Your task to perform on an android device: Go to calendar. Show me events next week Image 0: 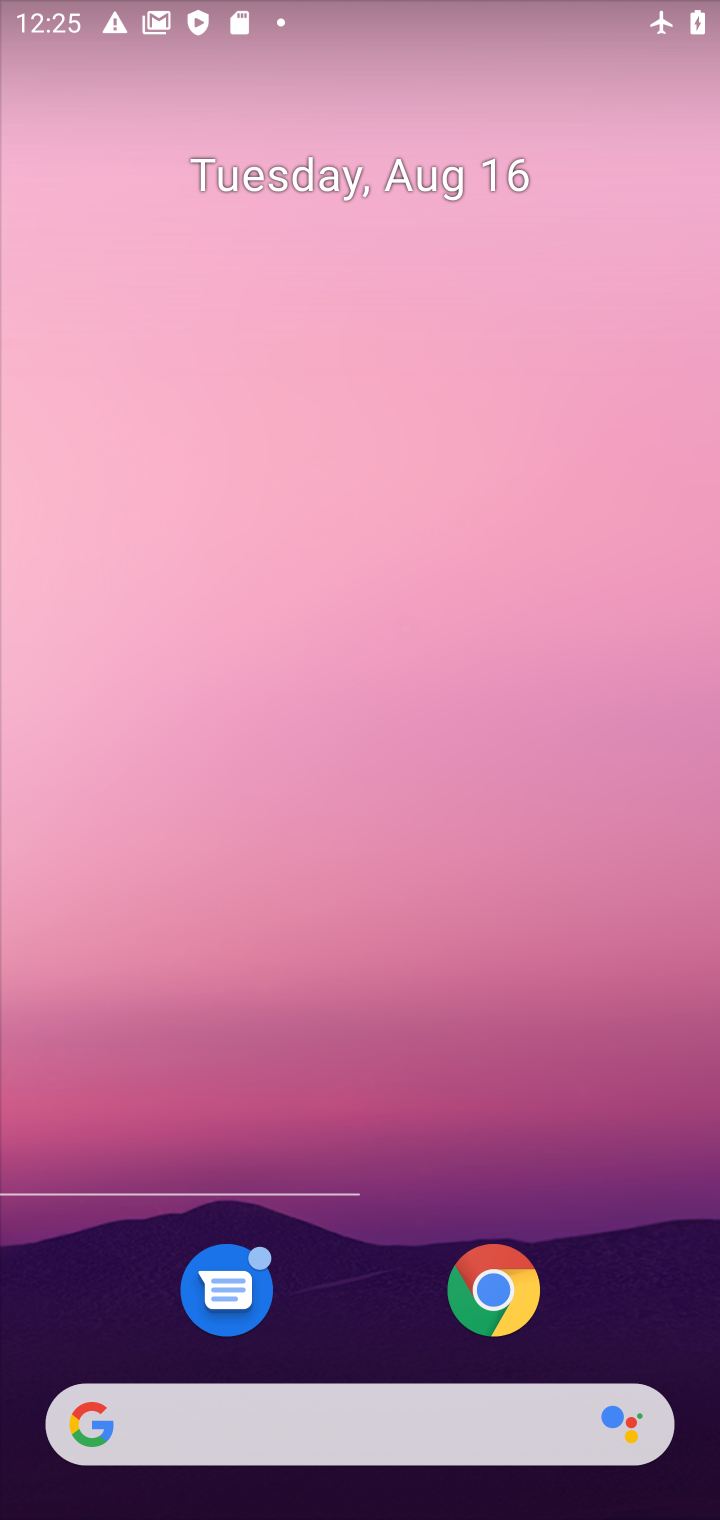
Step 0: press home button
Your task to perform on an android device: Go to calendar. Show me events next week Image 1: 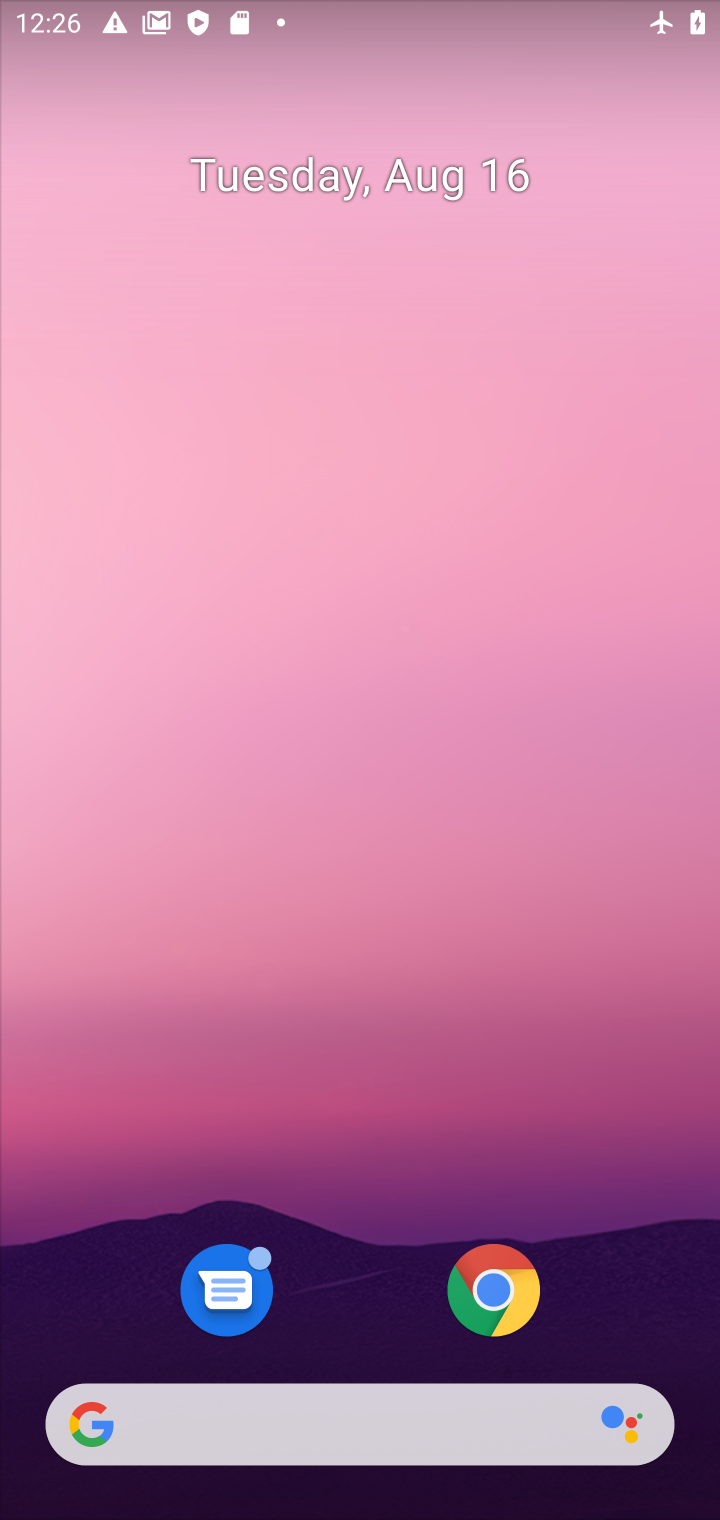
Step 1: drag from (370, 1350) to (419, 60)
Your task to perform on an android device: Go to calendar. Show me events next week Image 2: 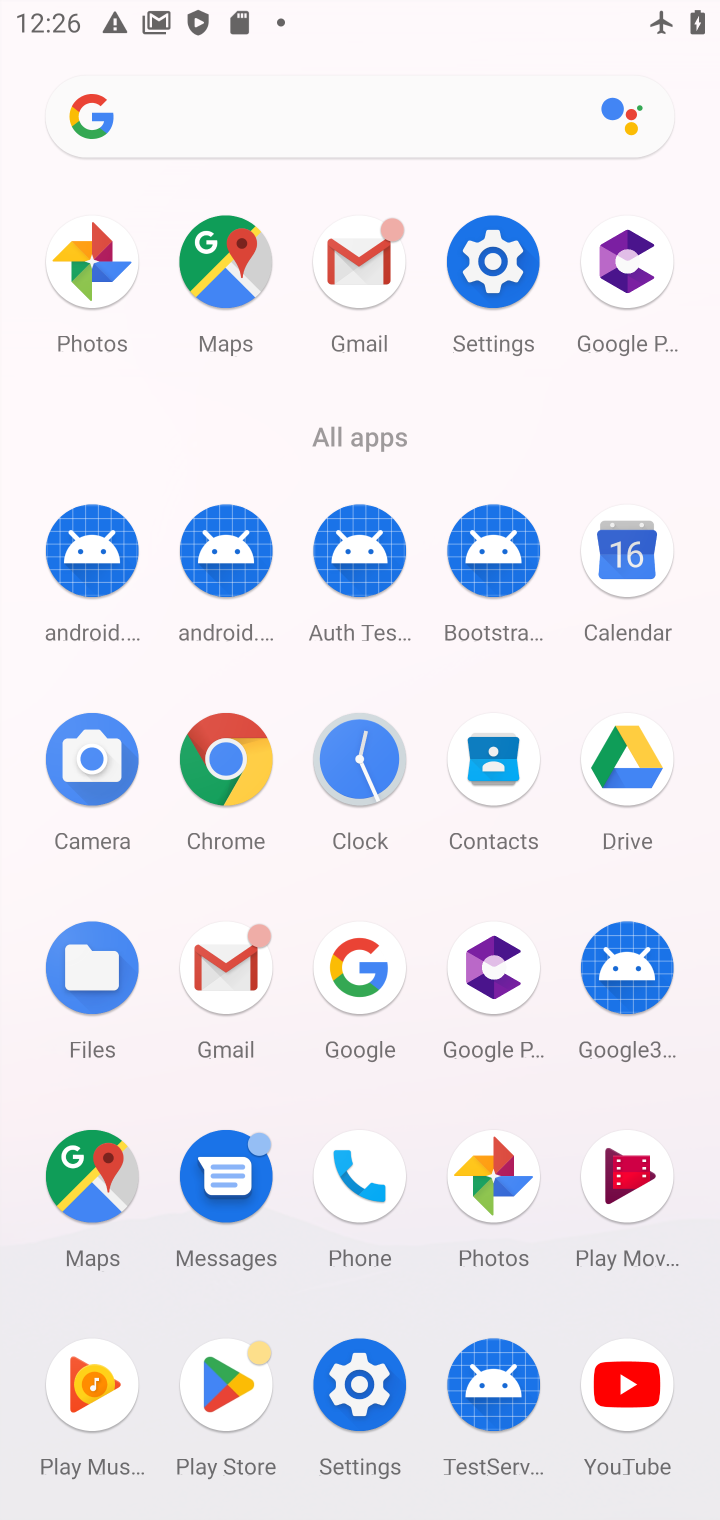
Step 2: click (628, 545)
Your task to perform on an android device: Go to calendar. Show me events next week Image 3: 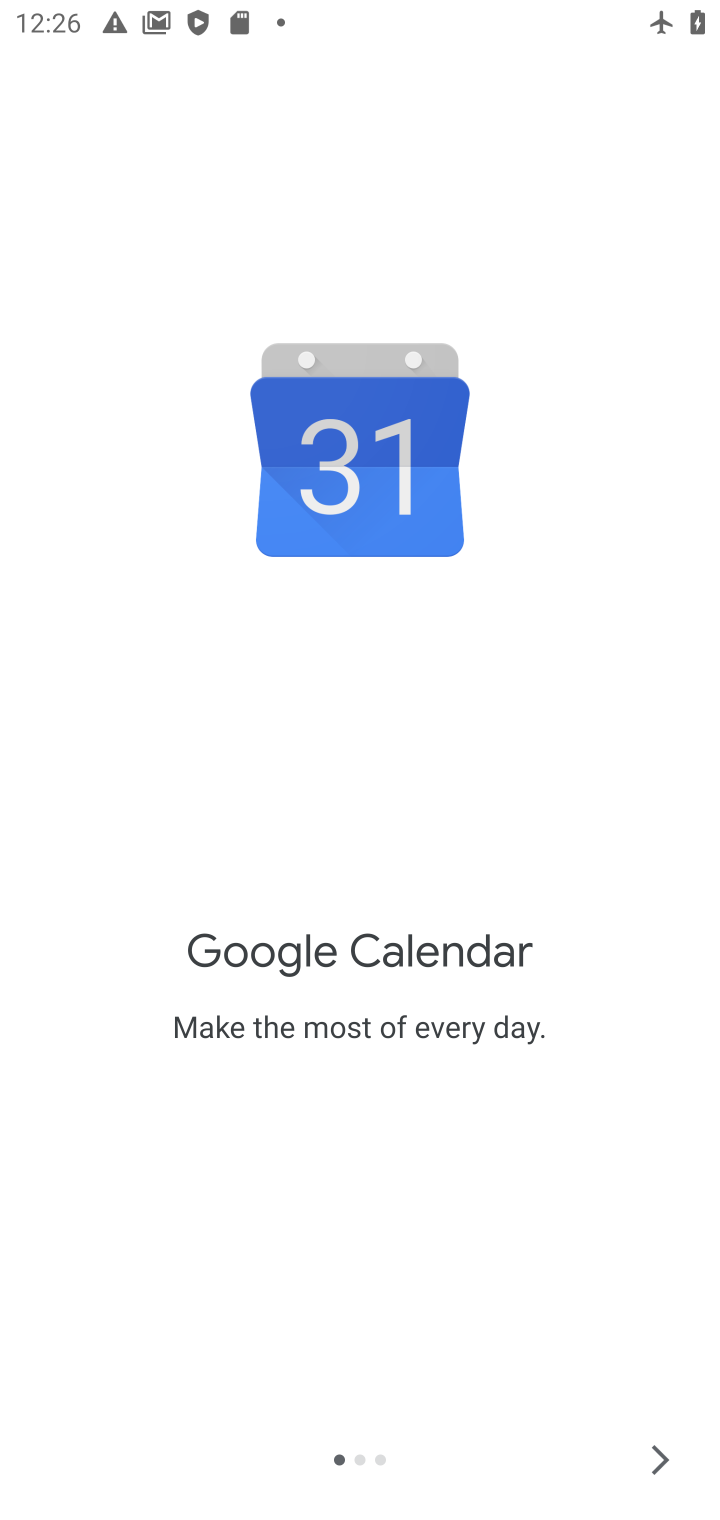
Step 3: click (655, 1459)
Your task to perform on an android device: Go to calendar. Show me events next week Image 4: 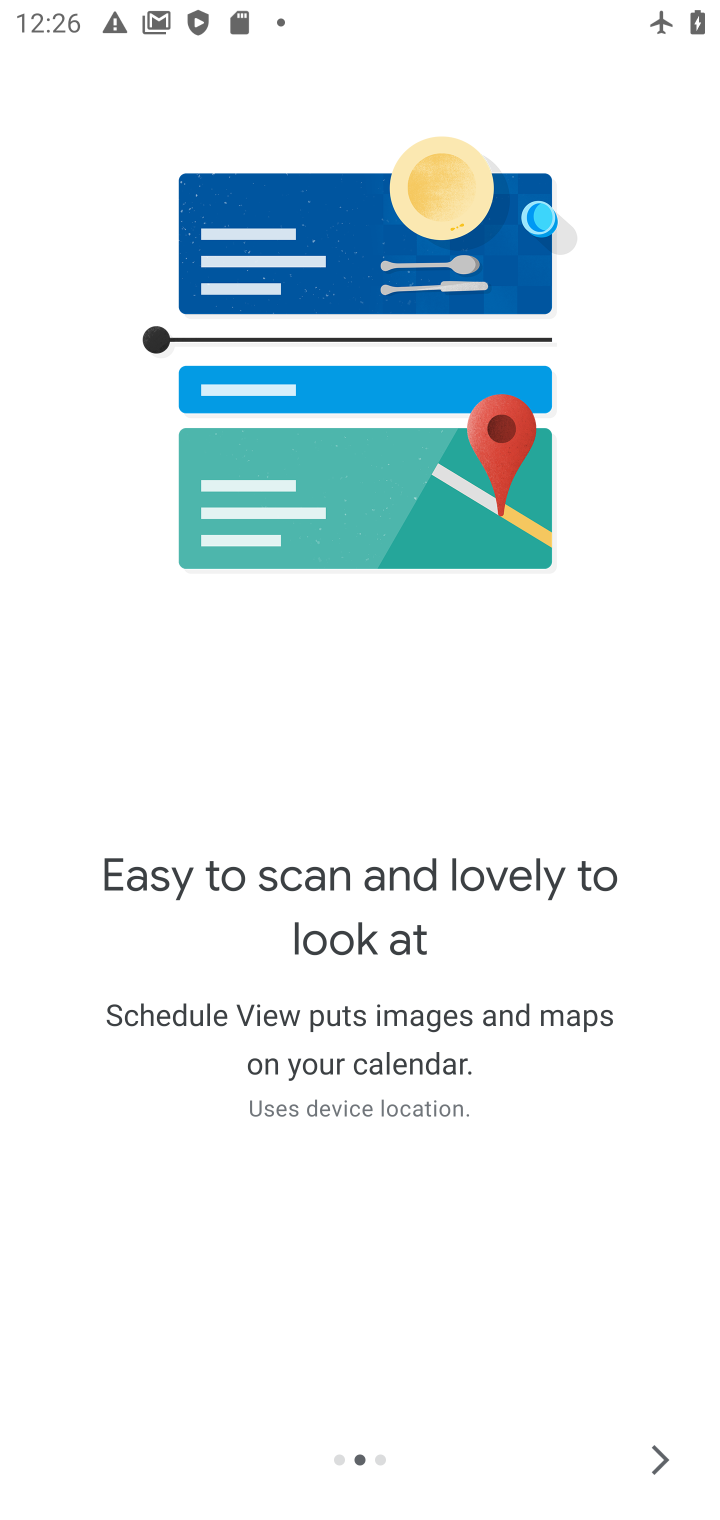
Step 4: click (667, 1463)
Your task to perform on an android device: Go to calendar. Show me events next week Image 5: 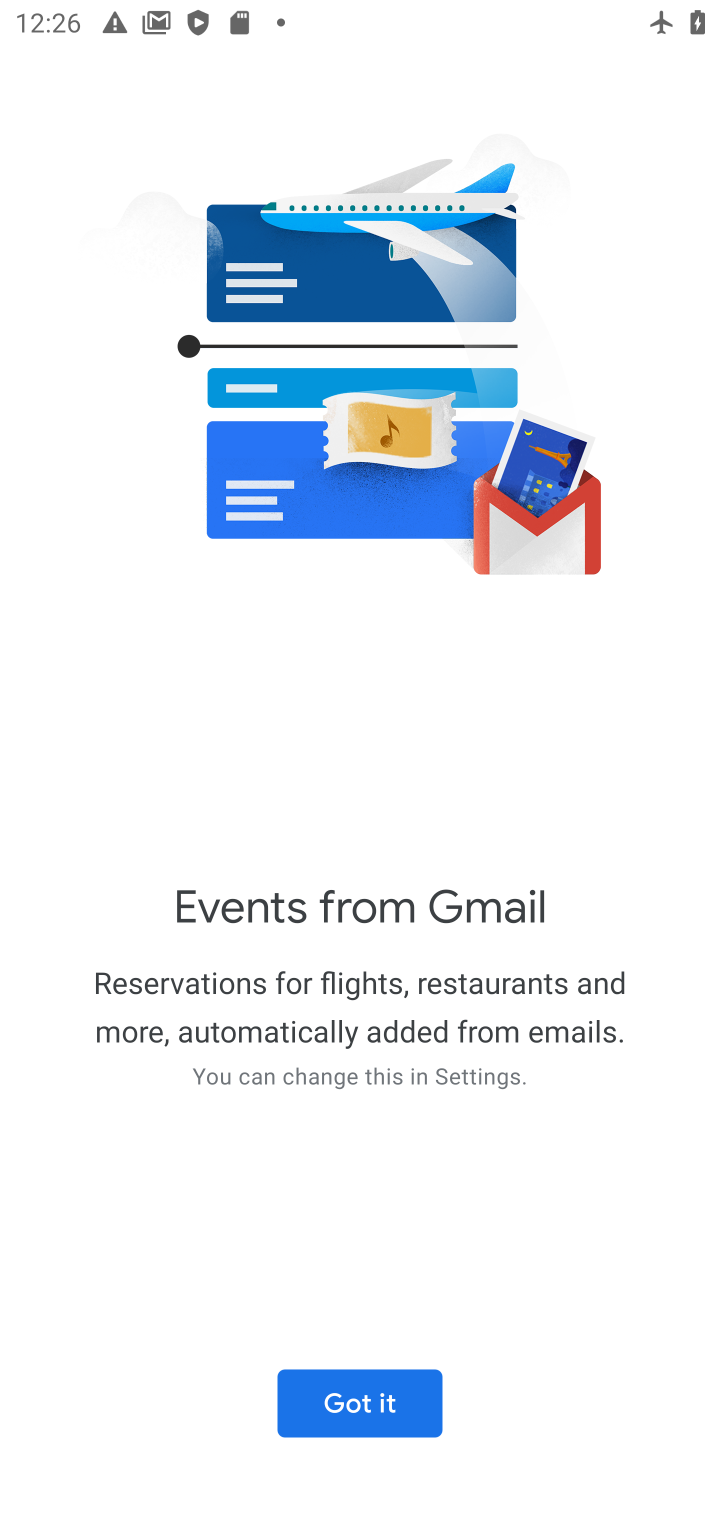
Step 5: click (353, 1382)
Your task to perform on an android device: Go to calendar. Show me events next week Image 6: 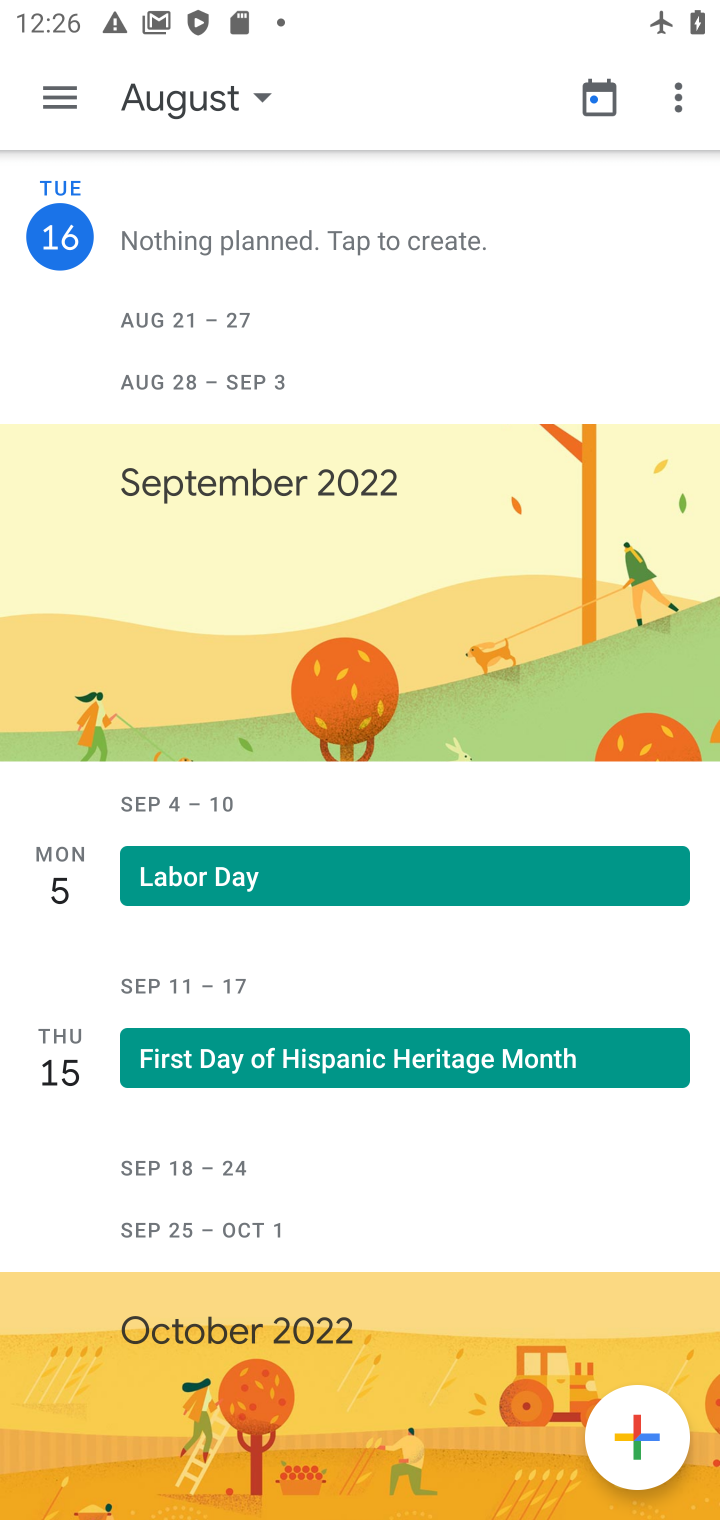
Step 6: click (55, 80)
Your task to perform on an android device: Go to calendar. Show me events next week Image 7: 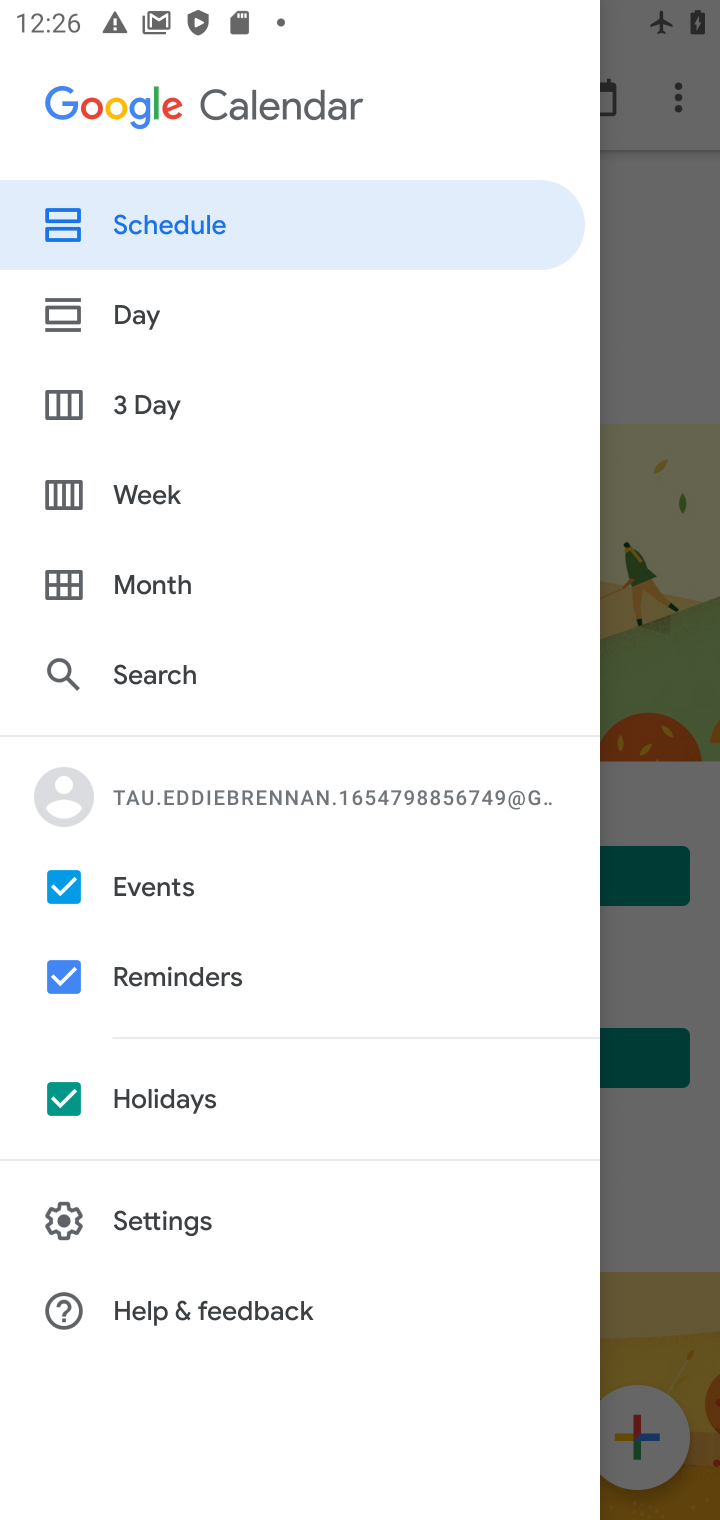
Step 7: click (187, 488)
Your task to perform on an android device: Go to calendar. Show me events next week Image 8: 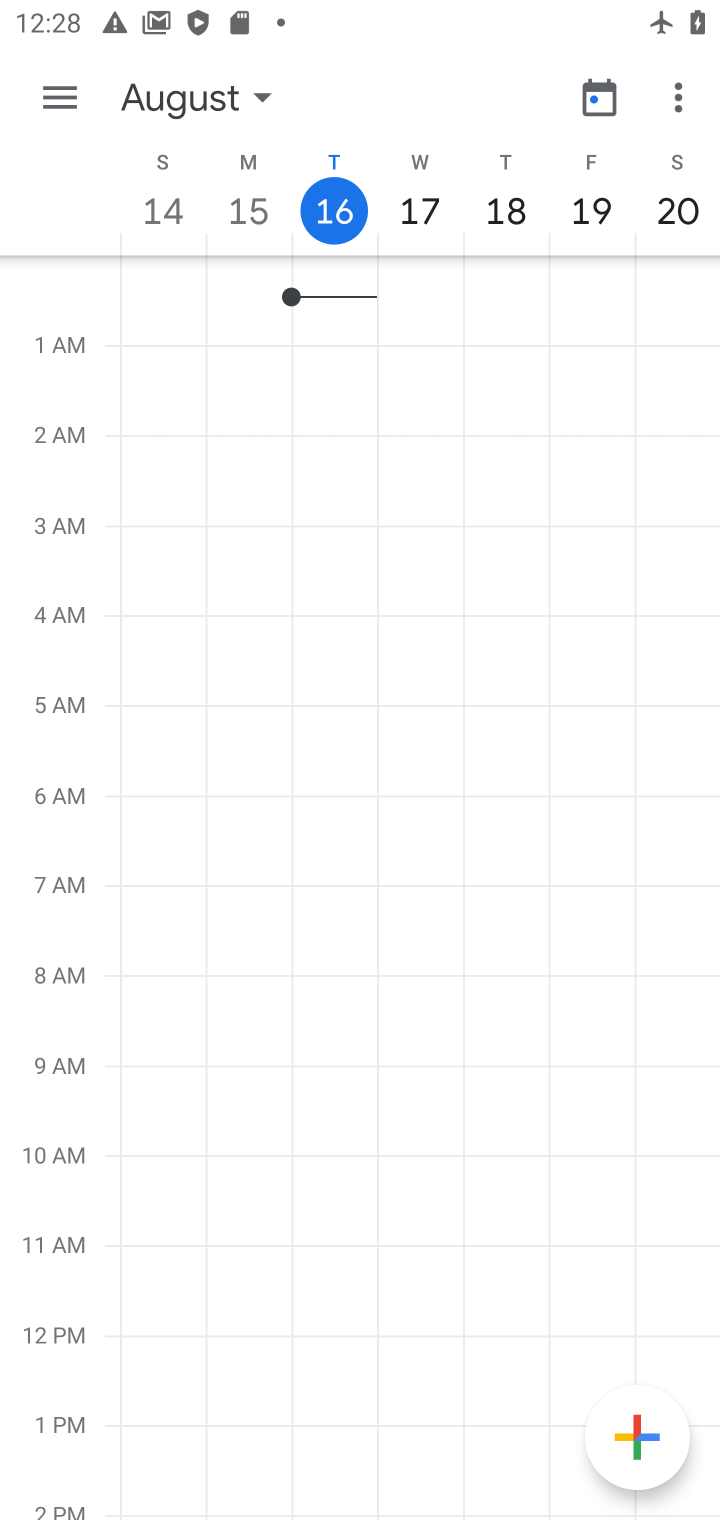
Step 8: drag from (634, 218) to (48, 183)
Your task to perform on an android device: Go to calendar. Show me events next week Image 9: 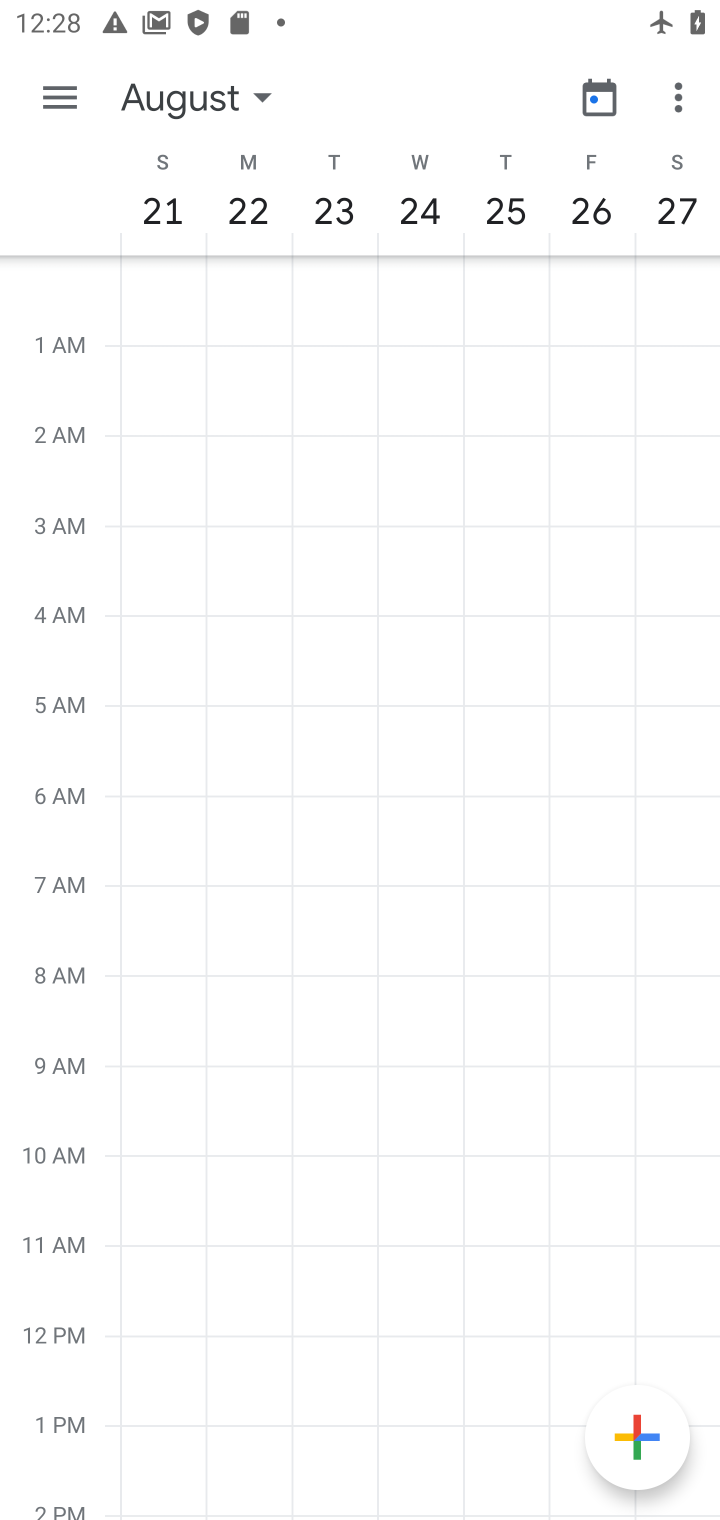
Step 9: click (158, 208)
Your task to perform on an android device: Go to calendar. Show me events next week Image 10: 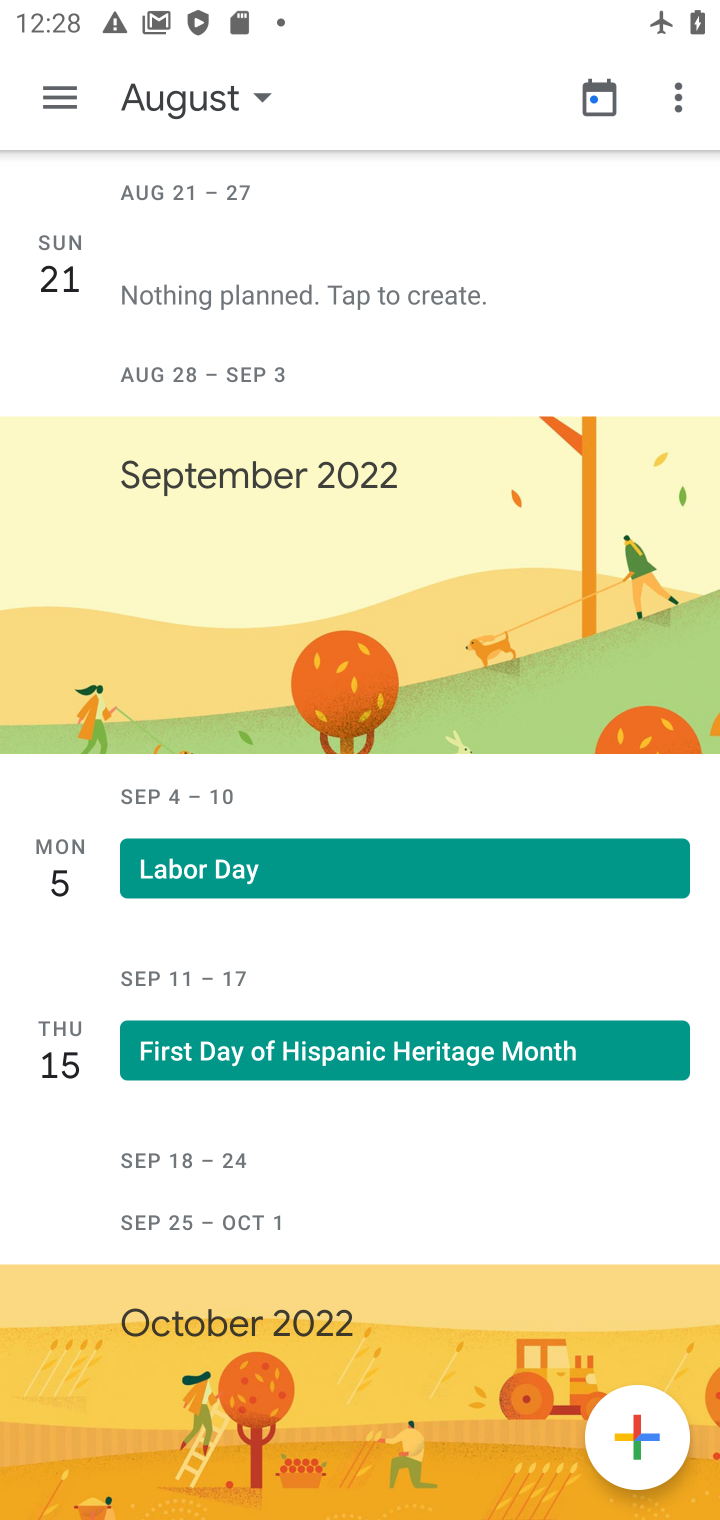
Step 10: task complete